Your task to perform on an android device: open app "Skype" Image 0: 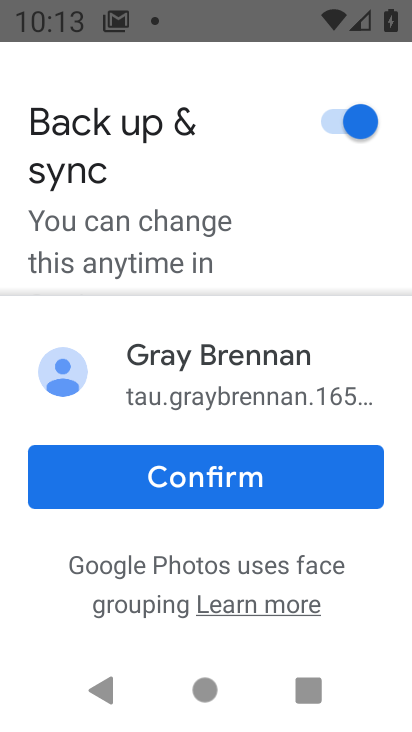
Step 0: press home button
Your task to perform on an android device: open app "Skype" Image 1: 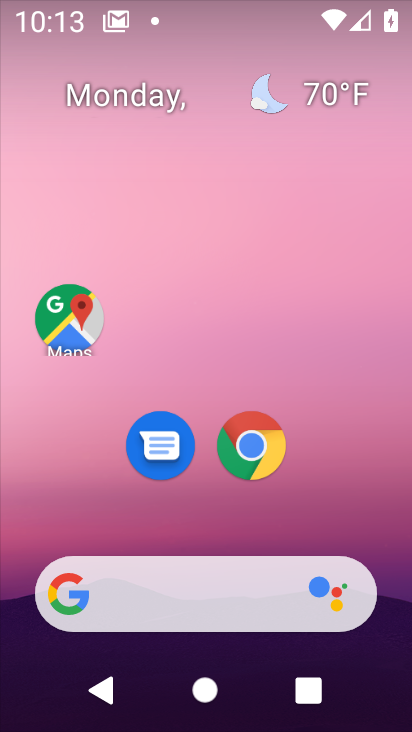
Step 1: drag from (102, 505) to (263, 1)
Your task to perform on an android device: open app "Skype" Image 2: 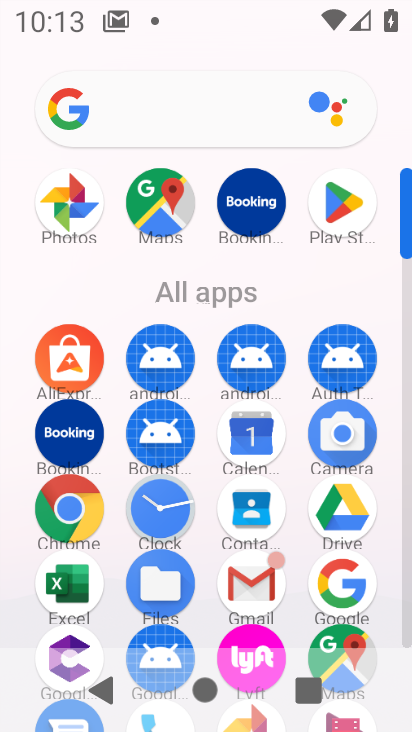
Step 2: click (359, 233)
Your task to perform on an android device: open app "Skype" Image 3: 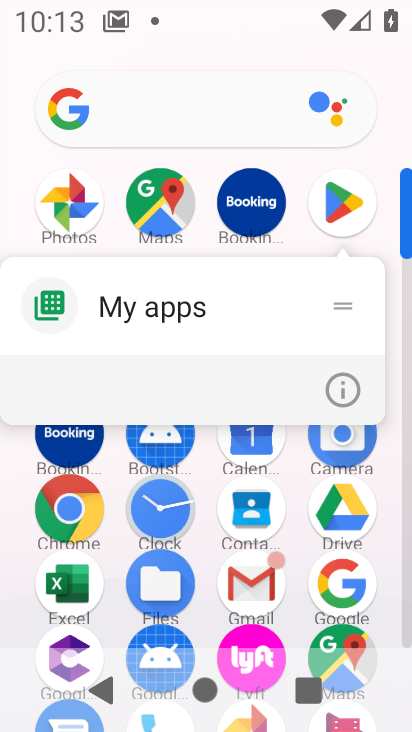
Step 3: click (354, 232)
Your task to perform on an android device: open app "Skype" Image 4: 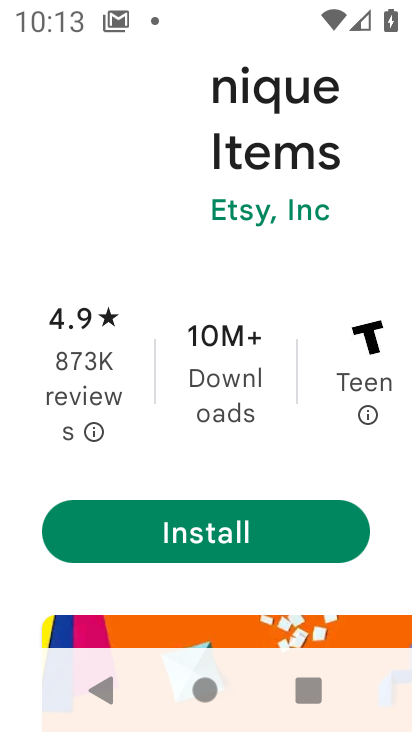
Step 4: drag from (276, 224) to (138, 718)
Your task to perform on an android device: open app "Skype" Image 5: 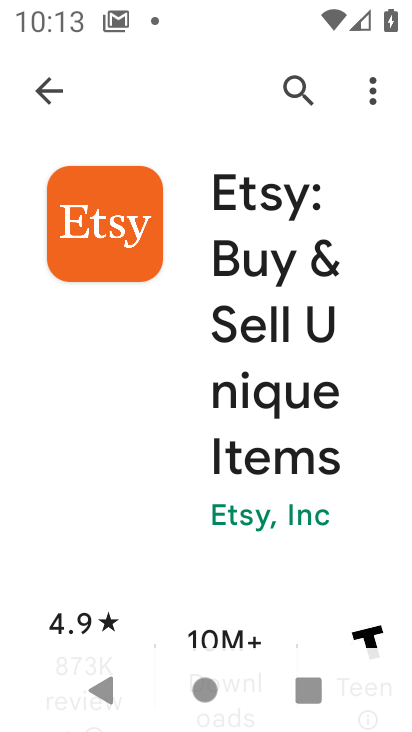
Step 5: click (55, 95)
Your task to perform on an android device: open app "Skype" Image 6: 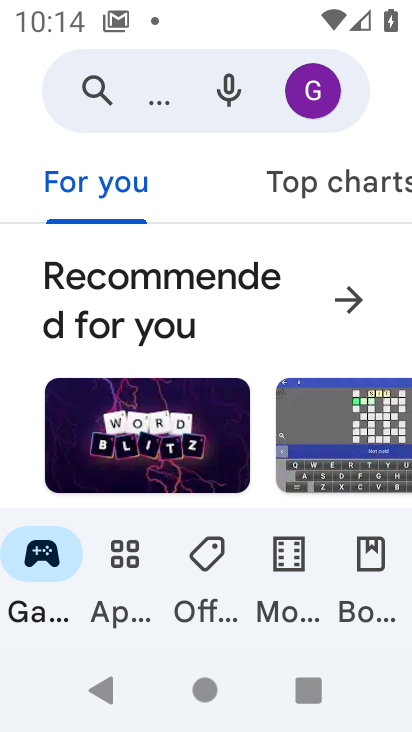
Step 6: click (75, 96)
Your task to perform on an android device: open app "Skype" Image 7: 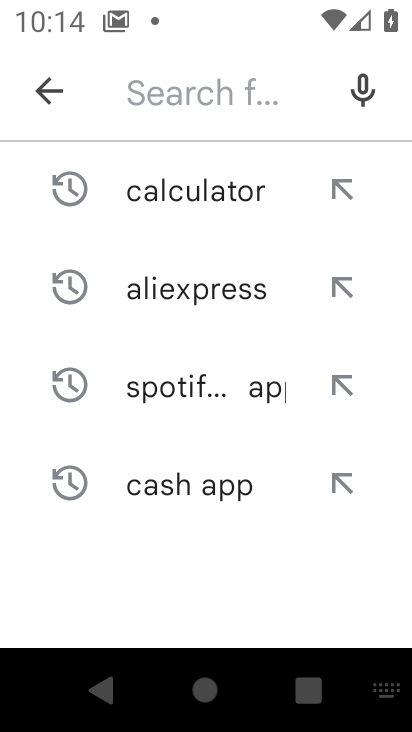
Step 7: type "Skype"
Your task to perform on an android device: open app "Skype" Image 8: 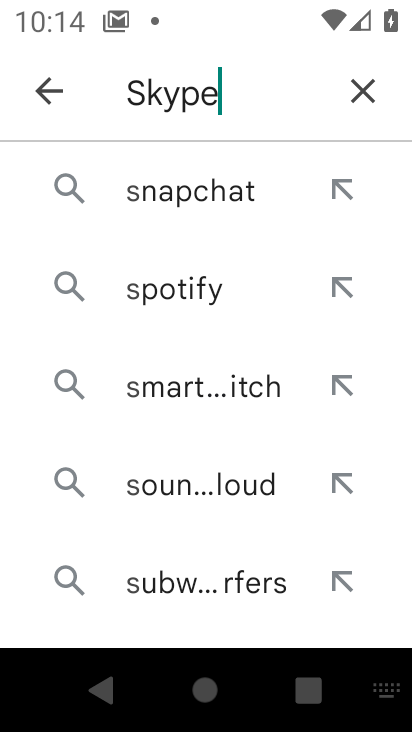
Step 8: type ""
Your task to perform on an android device: open app "Skype" Image 9: 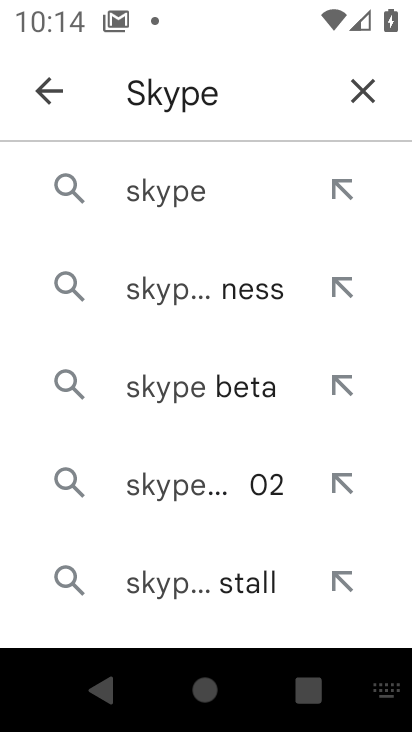
Step 9: click (157, 180)
Your task to perform on an android device: open app "Skype" Image 10: 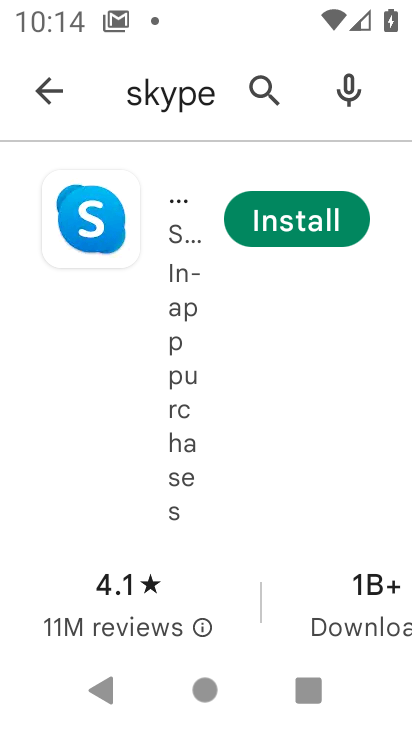
Step 10: task complete